Your task to perform on an android device: Go to wifi settings Image 0: 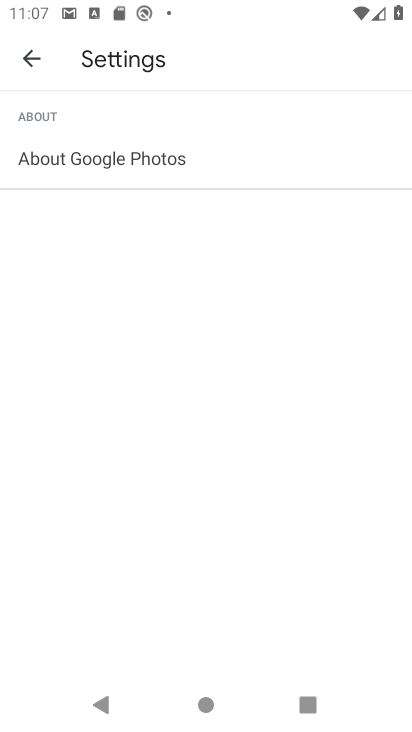
Step 0: press home button
Your task to perform on an android device: Go to wifi settings Image 1: 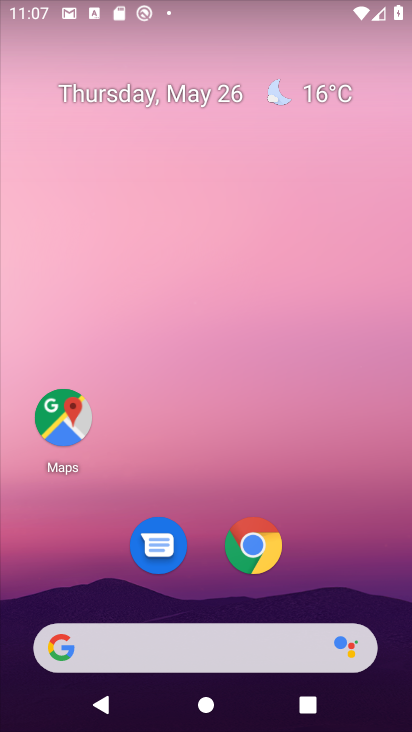
Step 1: drag from (233, 634) to (234, 224)
Your task to perform on an android device: Go to wifi settings Image 2: 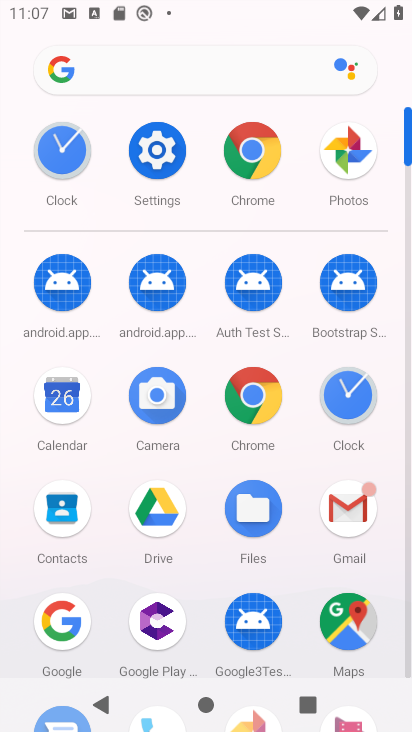
Step 2: click (149, 140)
Your task to perform on an android device: Go to wifi settings Image 3: 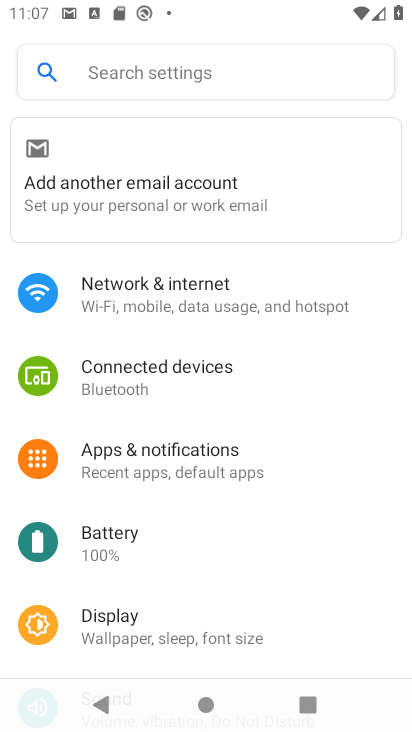
Step 3: click (148, 275)
Your task to perform on an android device: Go to wifi settings Image 4: 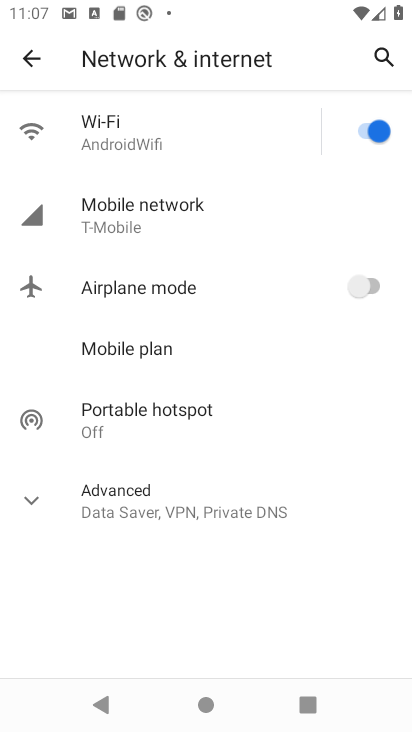
Step 4: click (115, 133)
Your task to perform on an android device: Go to wifi settings Image 5: 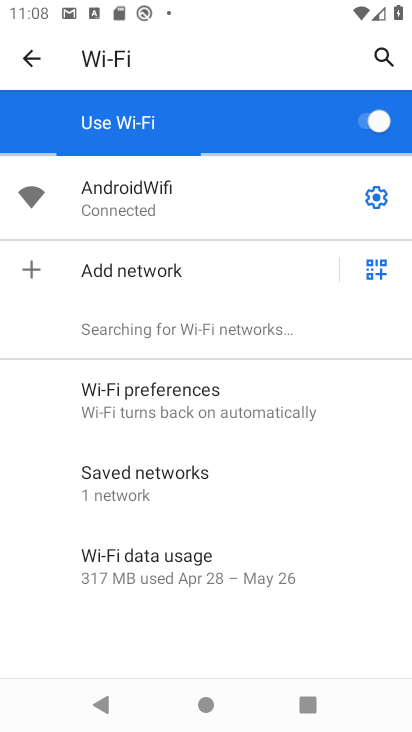
Step 5: task complete